Your task to perform on an android device: toggle data saver in the chrome app Image 0: 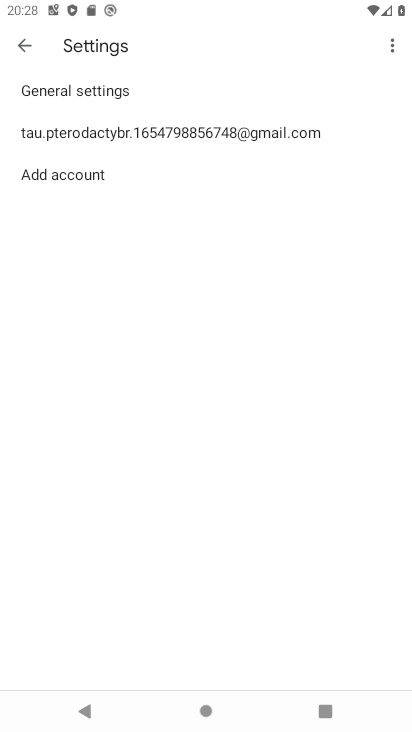
Step 0: press home button
Your task to perform on an android device: toggle data saver in the chrome app Image 1: 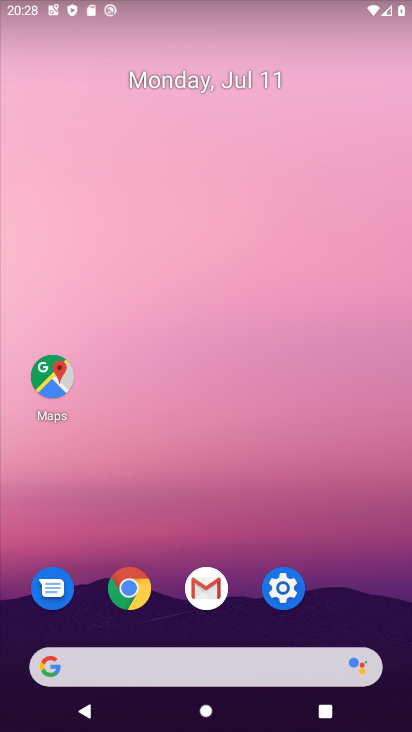
Step 1: click (136, 598)
Your task to perform on an android device: toggle data saver in the chrome app Image 2: 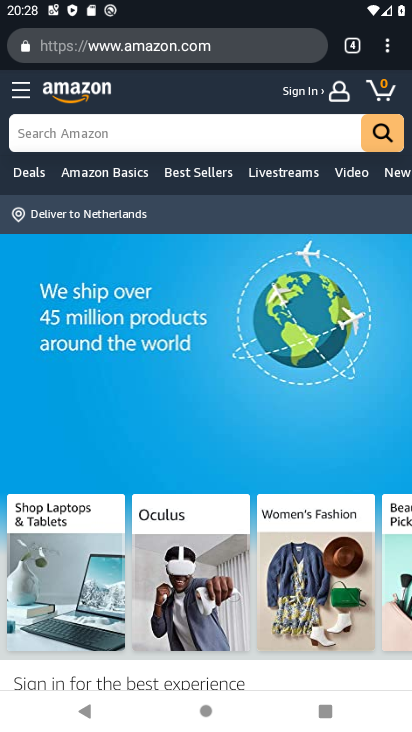
Step 2: click (386, 39)
Your task to perform on an android device: toggle data saver in the chrome app Image 3: 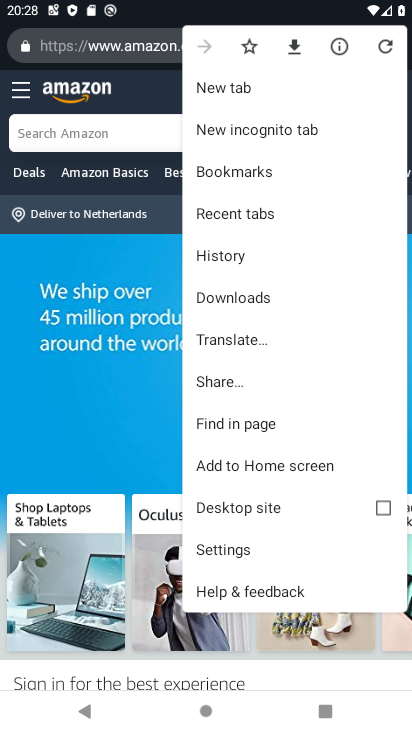
Step 3: click (253, 542)
Your task to perform on an android device: toggle data saver in the chrome app Image 4: 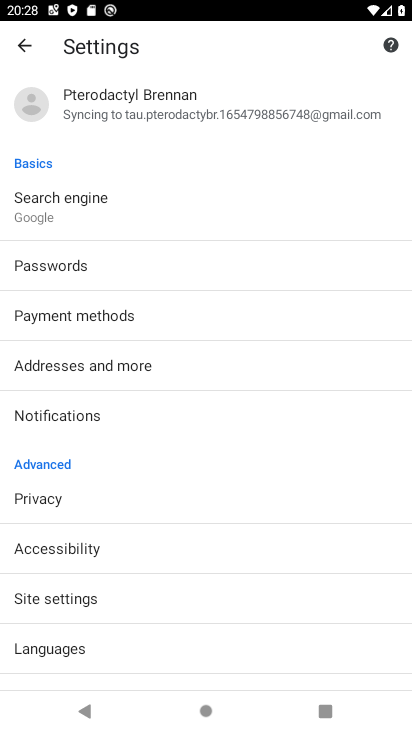
Step 4: drag from (81, 610) to (162, 351)
Your task to perform on an android device: toggle data saver in the chrome app Image 5: 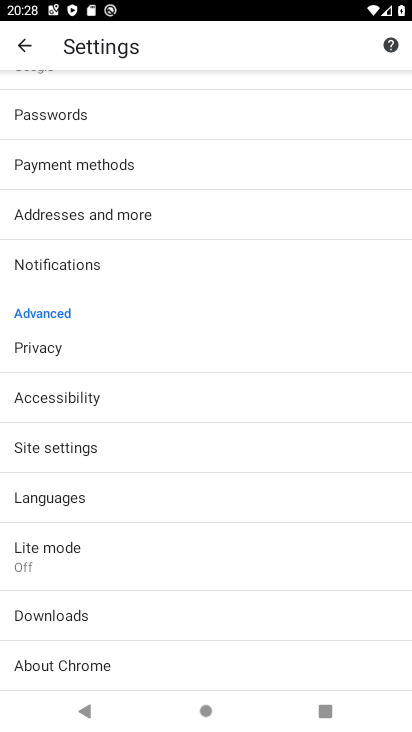
Step 5: click (70, 555)
Your task to perform on an android device: toggle data saver in the chrome app Image 6: 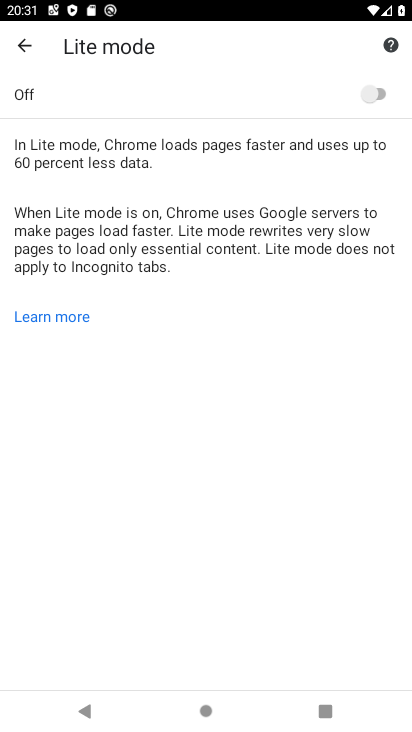
Step 6: task complete